Your task to perform on an android device: Open Google Chrome Image 0: 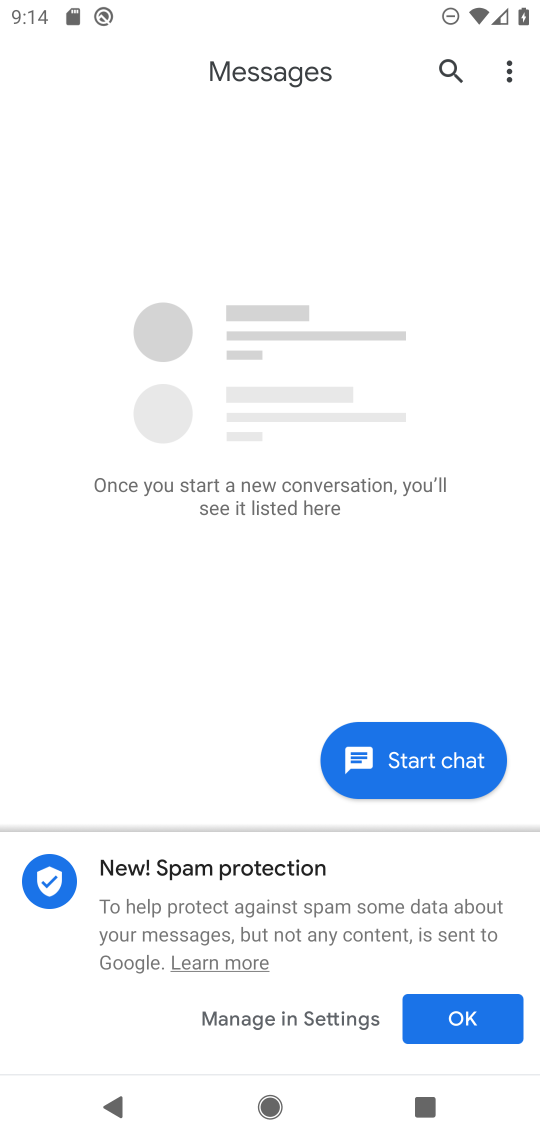
Step 0: press home button
Your task to perform on an android device: Open Google Chrome Image 1: 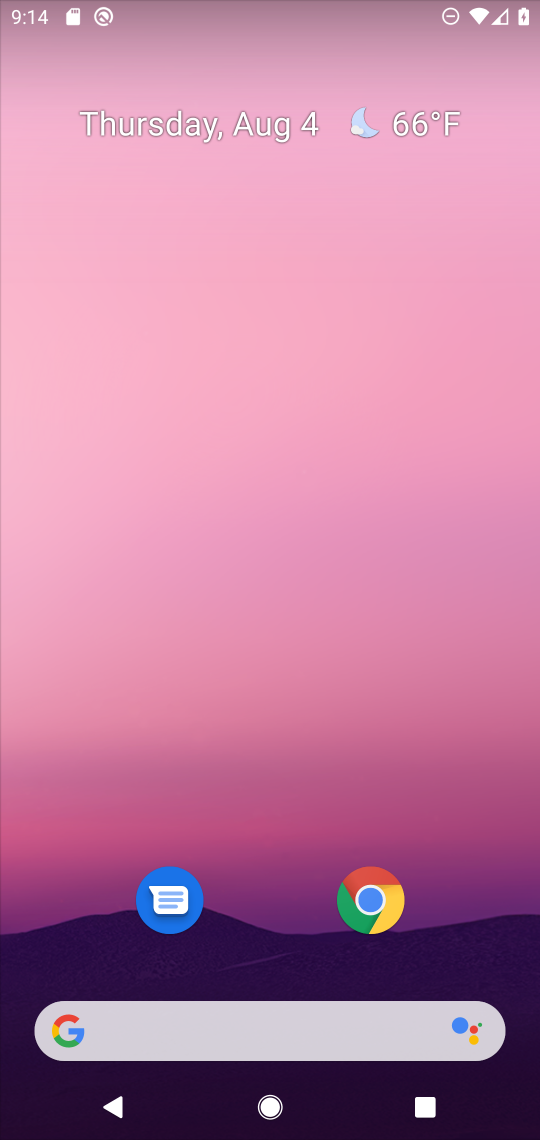
Step 1: click (366, 907)
Your task to perform on an android device: Open Google Chrome Image 2: 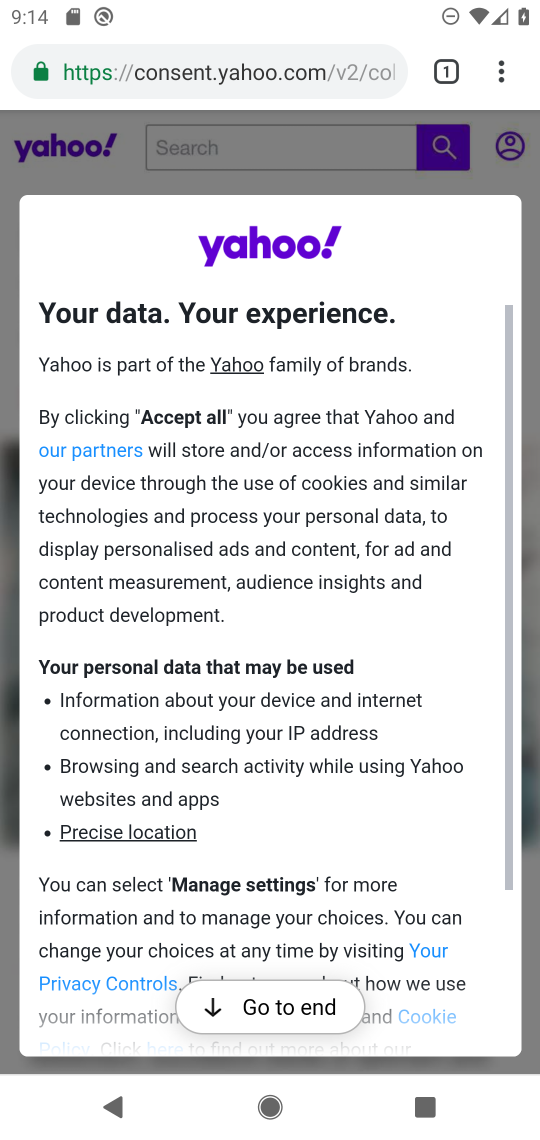
Step 2: task complete